Your task to perform on an android device: show emergency info Image 0: 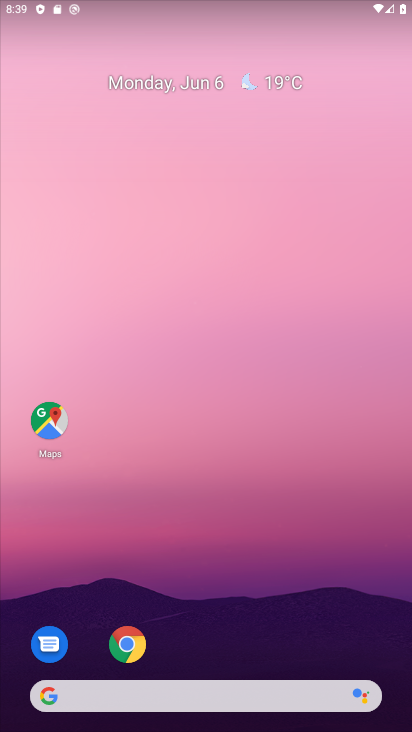
Step 0: drag from (243, 608) to (251, 15)
Your task to perform on an android device: show emergency info Image 1: 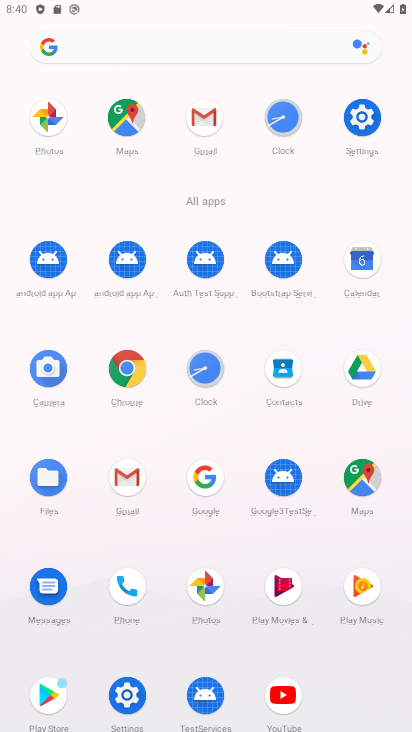
Step 1: click (362, 108)
Your task to perform on an android device: show emergency info Image 2: 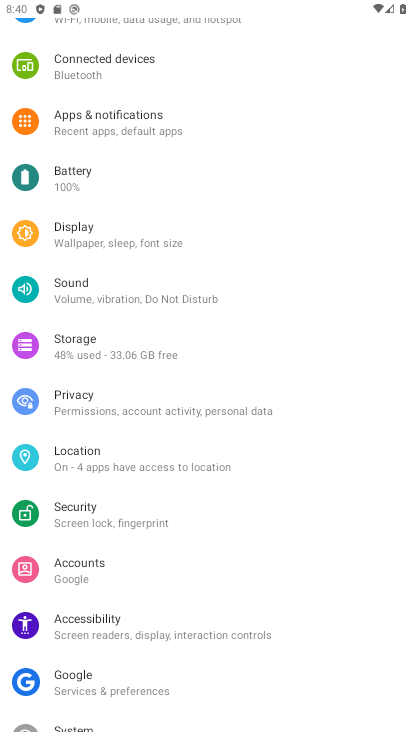
Step 2: drag from (144, 665) to (161, 124)
Your task to perform on an android device: show emergency info Image 3: 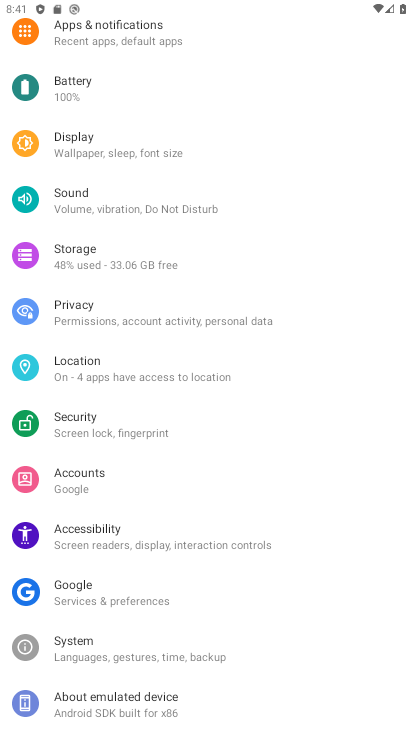
Step 3: click (42, 706)
Your task to perform on an android device: show emergency info Image 4: 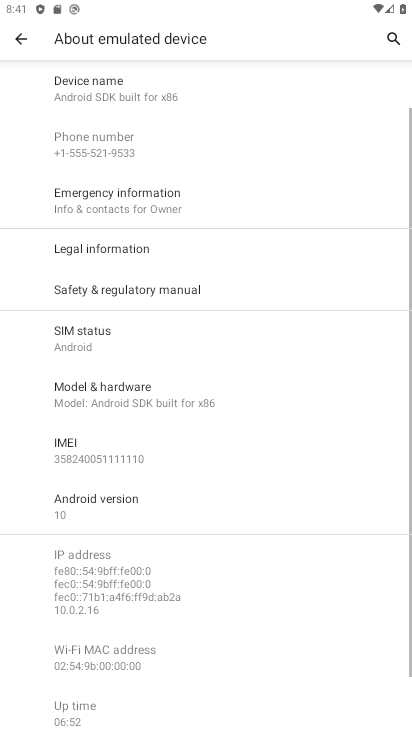
Step 4: click (115, 209)
Your task to perform on an android device: show emergency info Image 5: 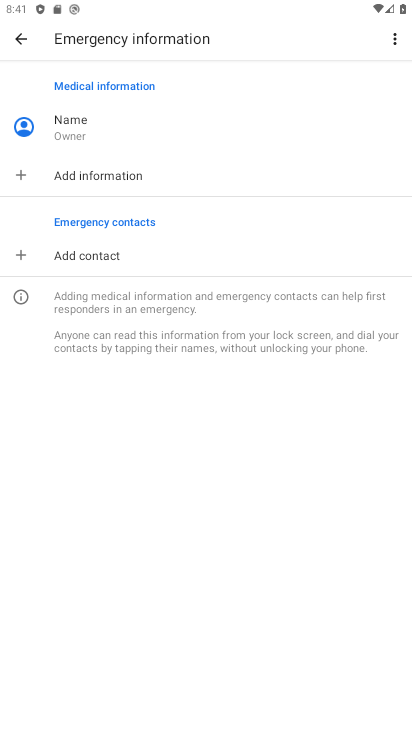
Step 5: task complete